Your task to perform on an android device: toggle wifi Image 0: 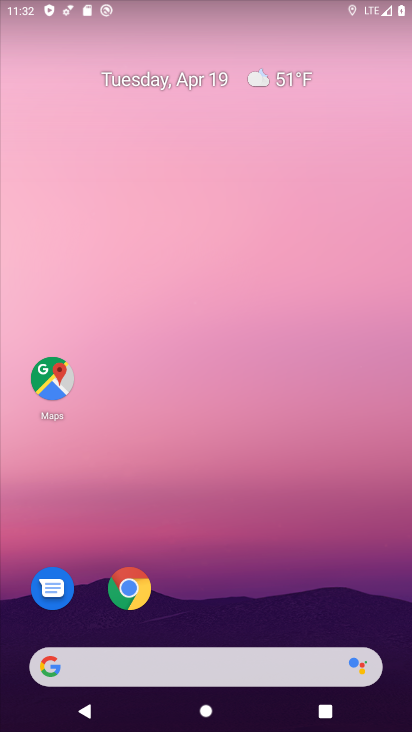
Step 0: click (246, 126)
Your task to perform on an android device: toggle wifi Image 1: 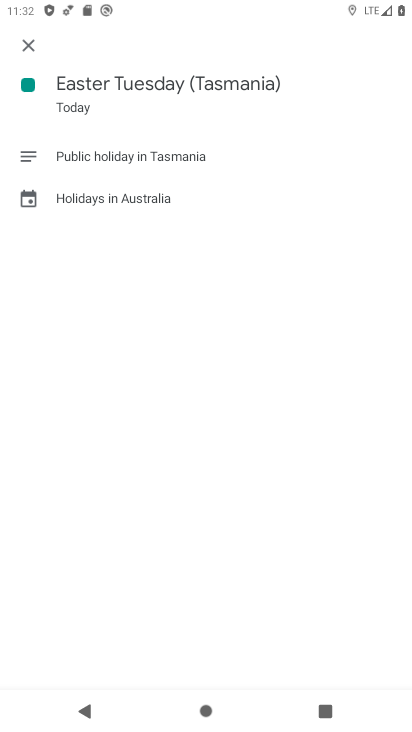
Step 1: press home button
Your task to perform on an android device: toggle wifi Image 2: 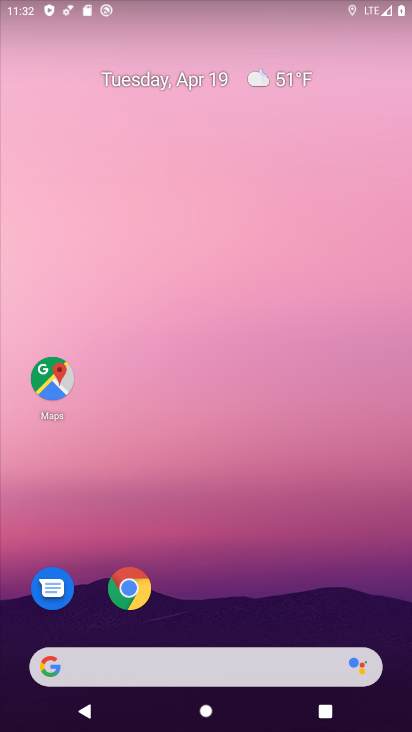
Step 2: drag from (220, 612) to (288, 72)
Your task to perform on an android device: toggle wifi Image 3: 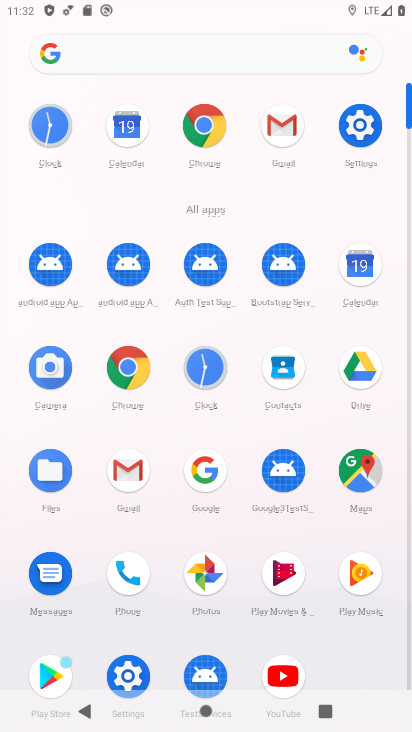
Step 3: click (354, 119)
Your task to perform on an android device: toggle wifi Image 4: 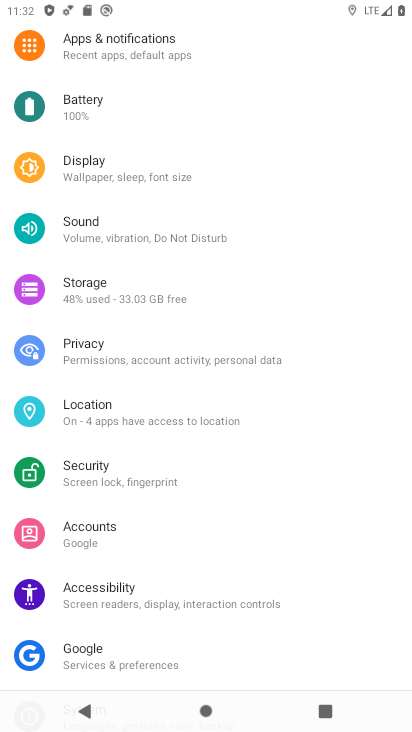
Step 4: drag from (178, 84) to (147, 609)
Your task to perform on an android device: toggle wifi Image 5: 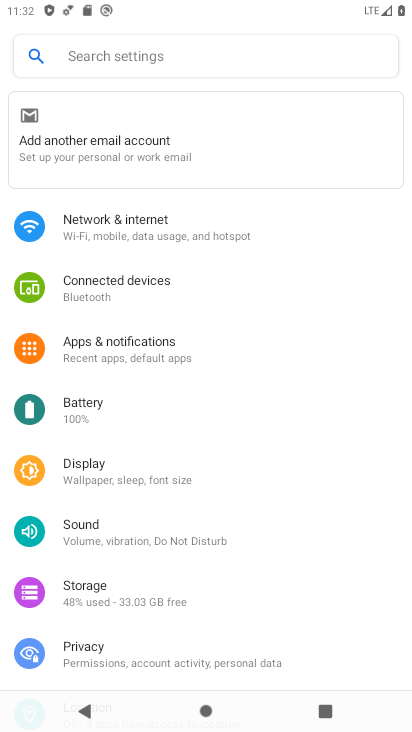
Step 5: click (198, 212)
Your task to perform on an android device: toggle wifi Image 6: 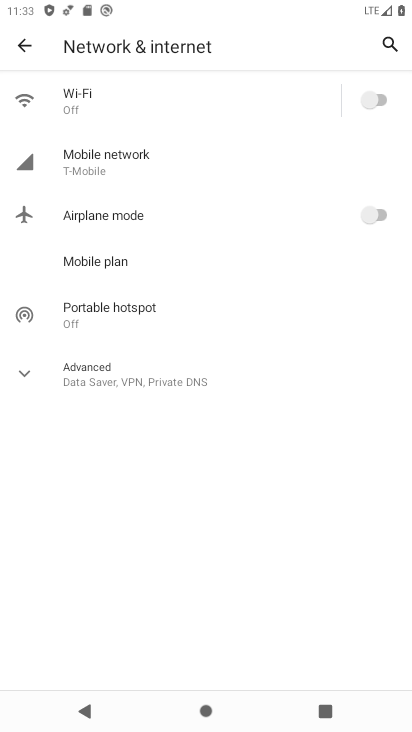
Step 6: click (369, 97)
Your task to perform on an android device: toggle wifi Image 7: 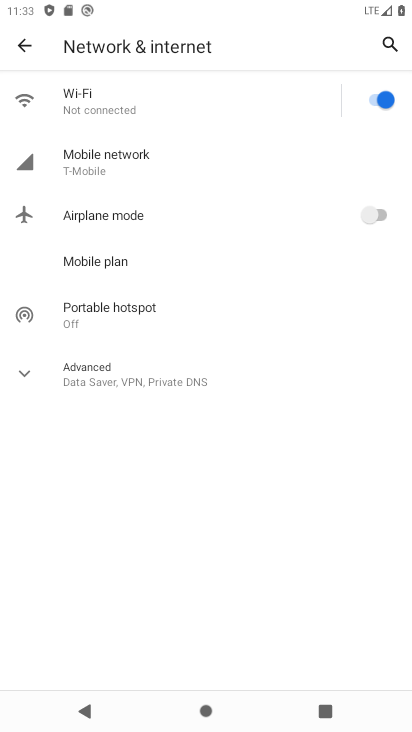
Step 7: task complete